Your task to perform on an android device: check data usage Image 0: 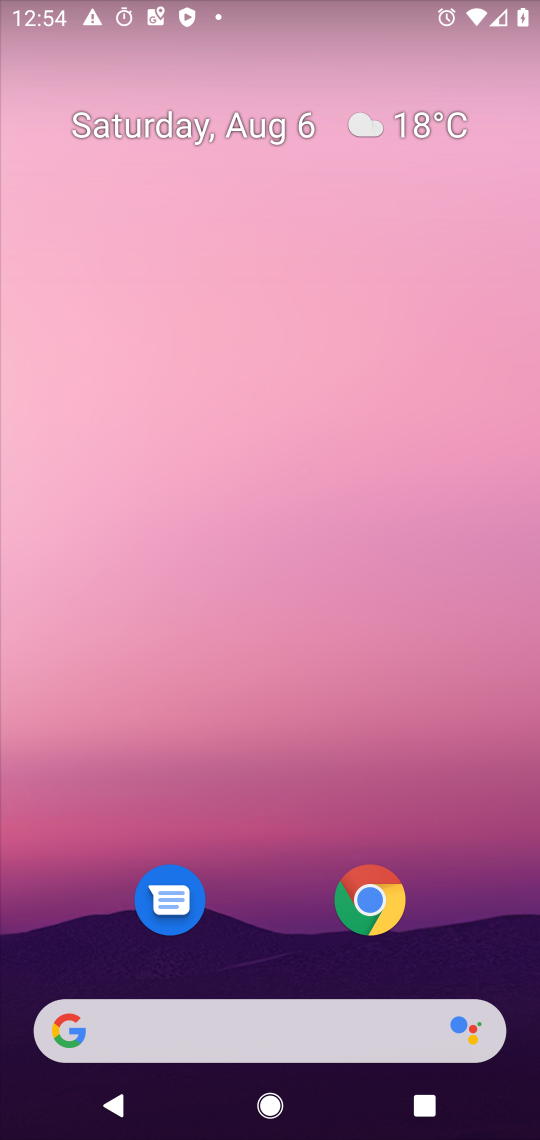
Step 0: drag from (471, 933) to (308, 296)
Your task to perform on an android device: check data usage Image 1: 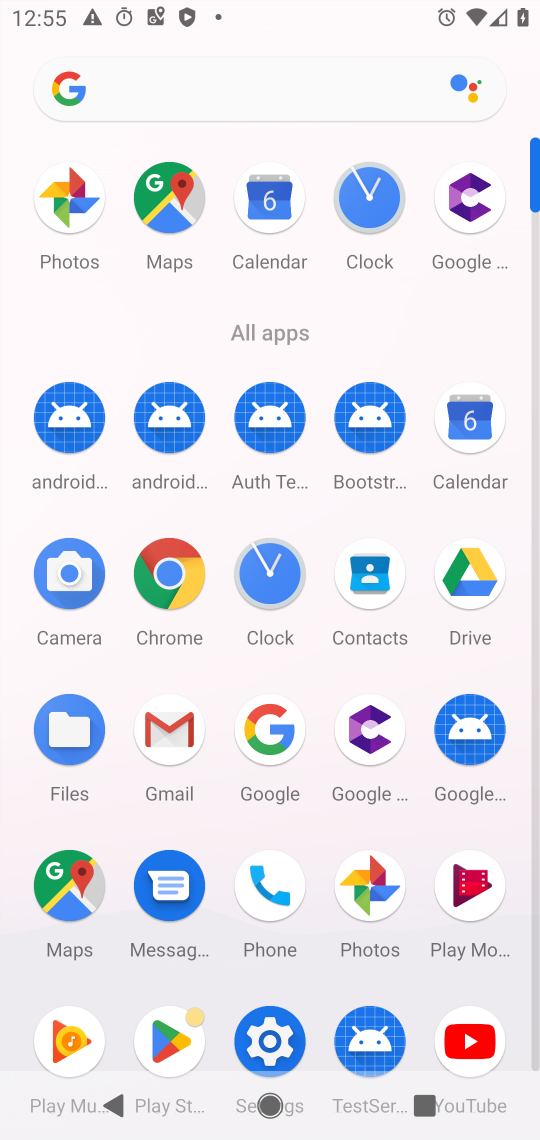
Step 1: click (267, 551)
Your task to perform on an android device: check data usage Image 2: 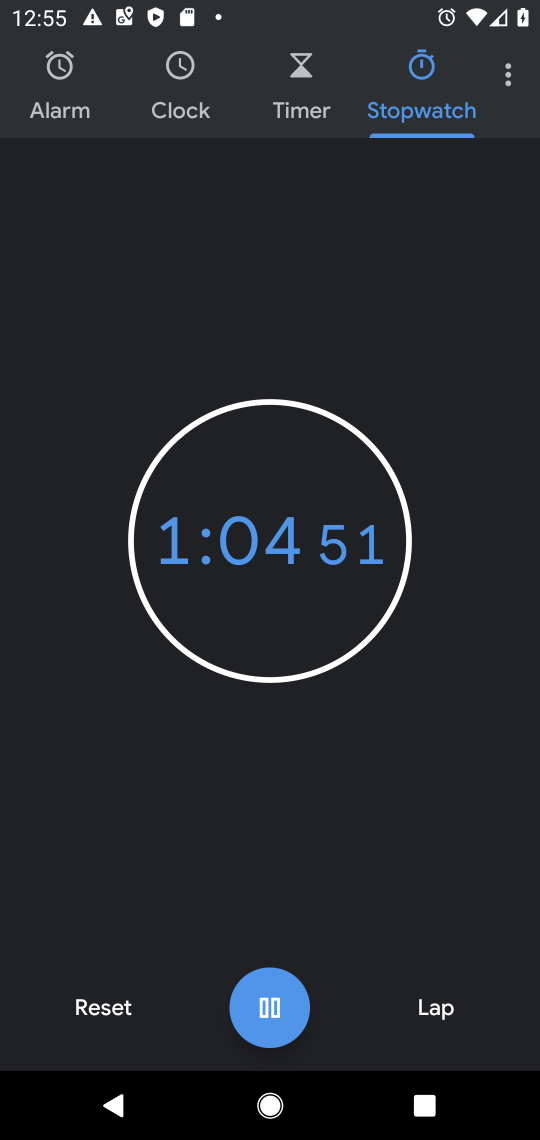
Step 2: click (524, 85)
Your task to perform on an android device: check data usage Image 3: 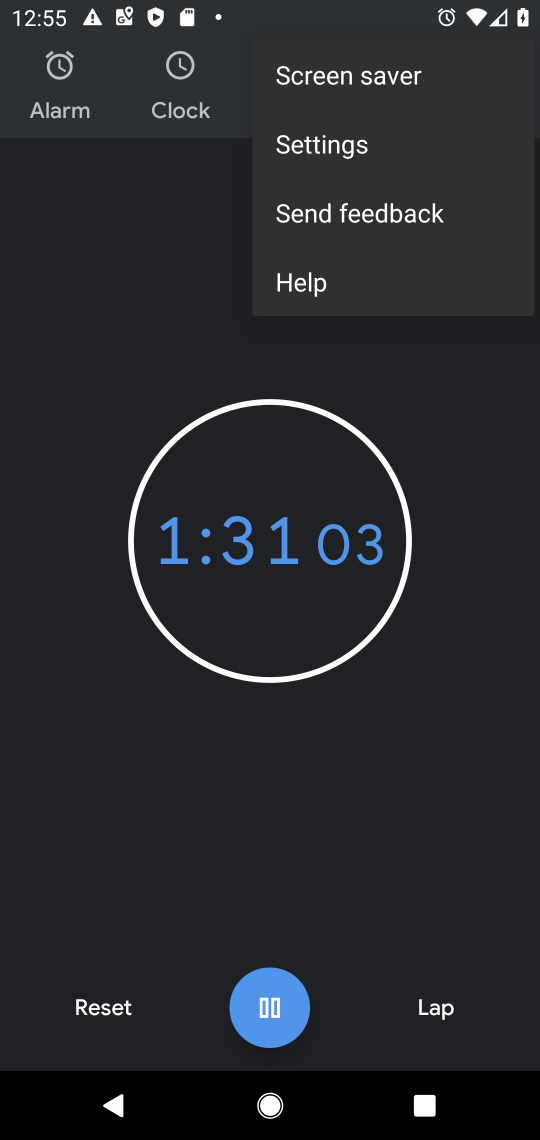
Step 3: drag from (344, 17) to (326, 866)
Your task to perform on an android device: check data usage Image 4: 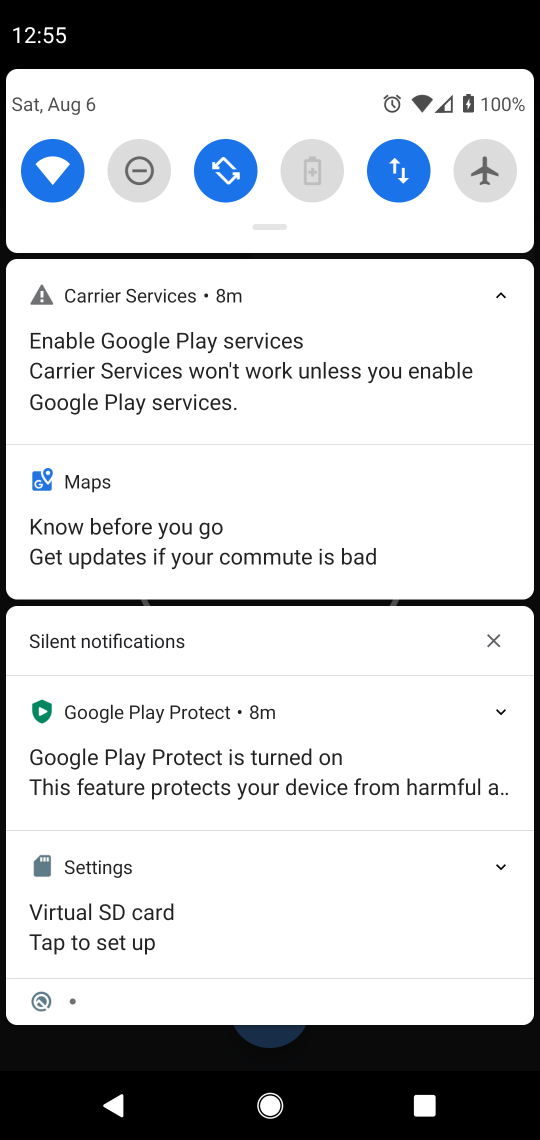
Step 4: drag from (275, 215) to (284, 988)
Your task to perform on an android device: check data usage Image 5: 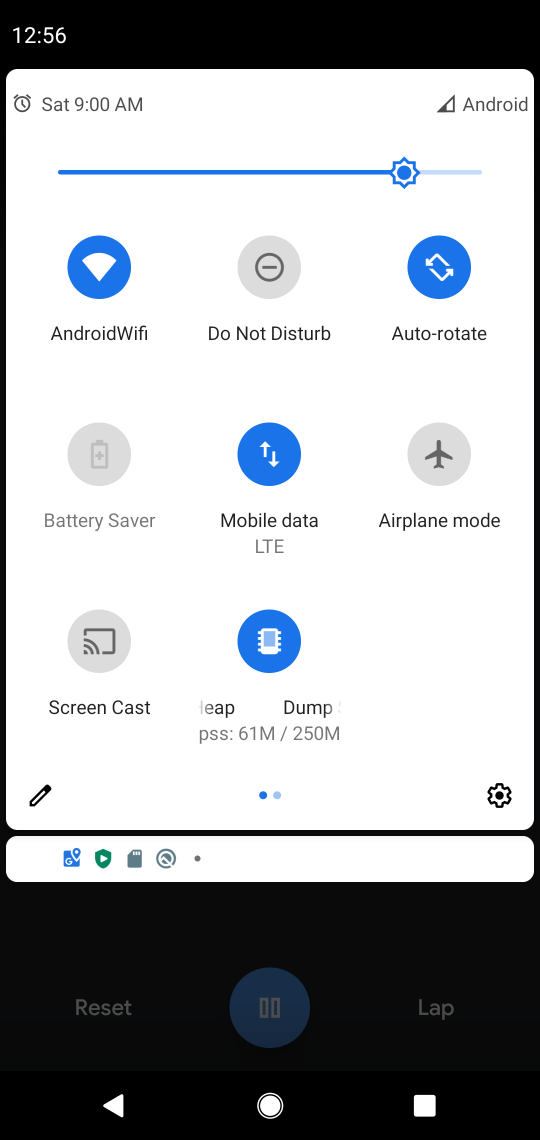
Step 5: click (270, 454)
Your task to perform on an android device: check data usage Image 6: 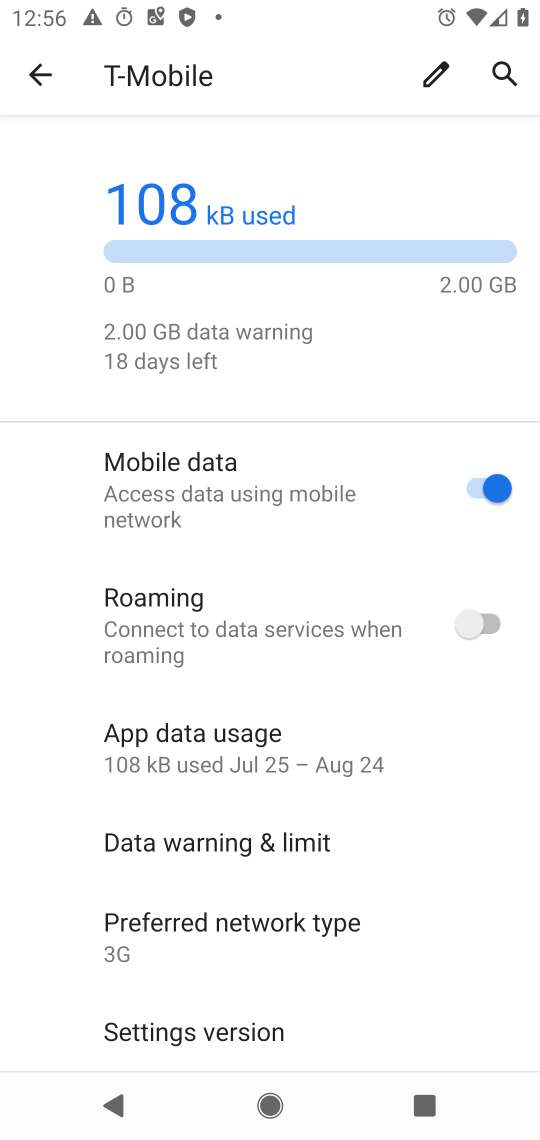
Step 6: task complete